Your task to perform on an android device: Open CNN.com Image 0: 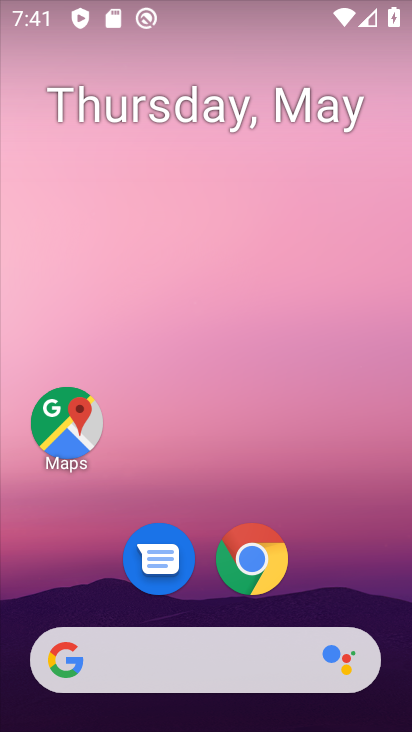
Step 0: click (253, 557)
Your task to perform on an android device: Open CNN.com Image 1: 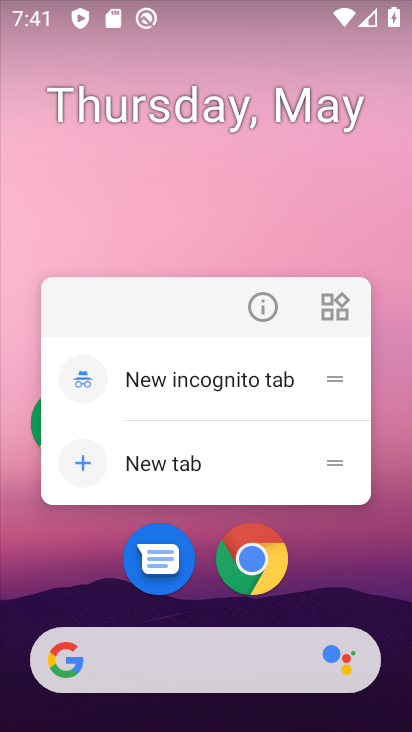
Step 1: click (253, 557)
Your task to perform on an android device: Open CNN.com Image 2: 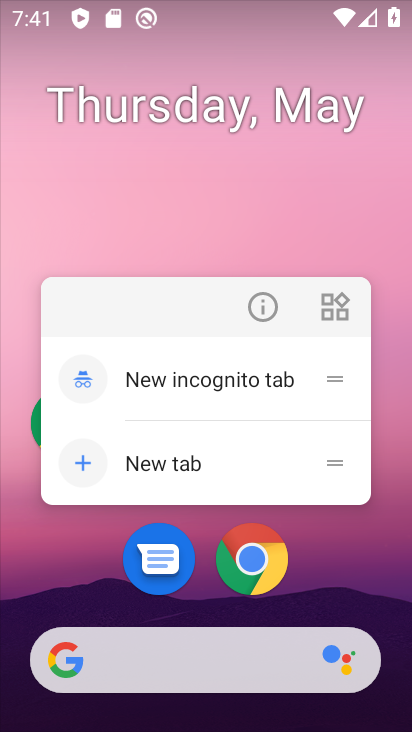
Step 2: click (251, 551)
Your task to perform on an android device: Open CNN.com Image 3: 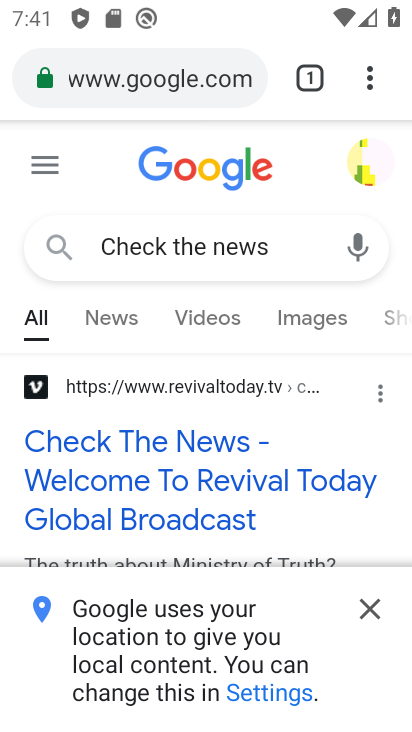
Step 3: click (359, 80)
Your task to perform on an android device: Open CNN.com Image 4: 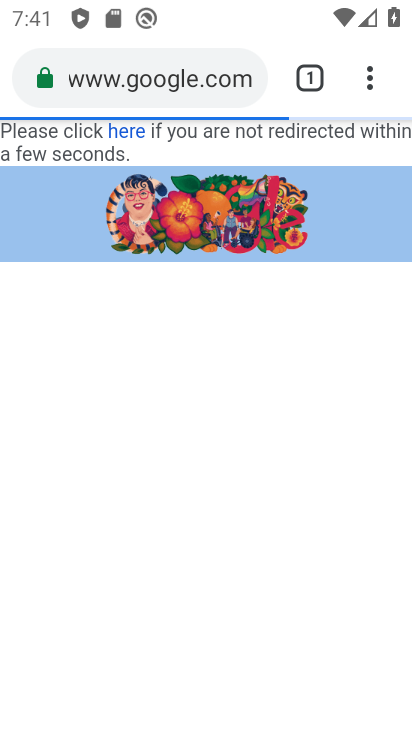
Step 4: click (379, 78)
Your task to perform on an android device: Open CNN.com Image 5: 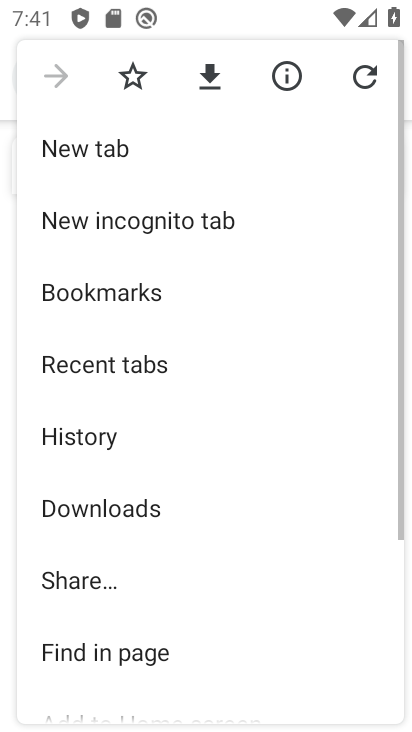
Step 5: click (120, 122)
Your task to perform on an android device: Open CNN.com Image 6: 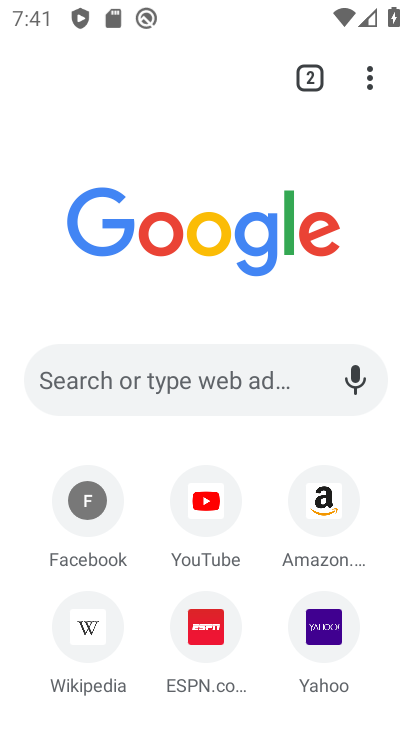
Step 6: click (155, 364)
Your task to perform on an android device: Open CNN.com Image 7: 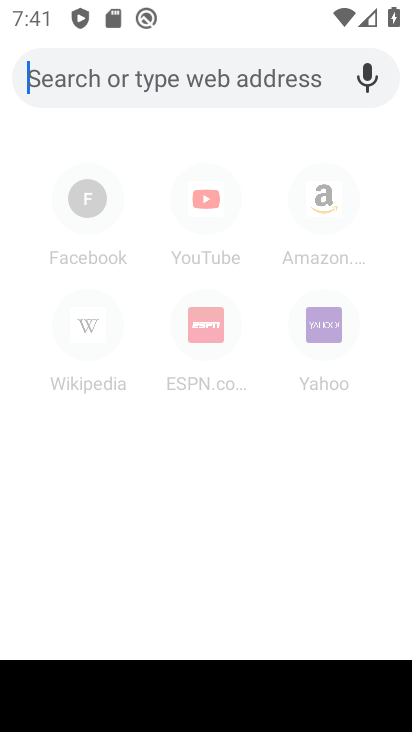
Step 7: type " CNN.com"
Your task to perform on an android device: Open CNN.com Image 8: 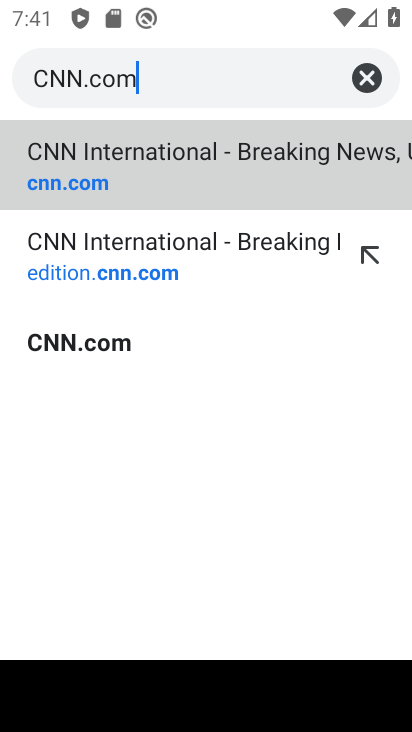
Step 8: click (93, 317)
Your task to perform on an android device: Open CNN.com Image 9: 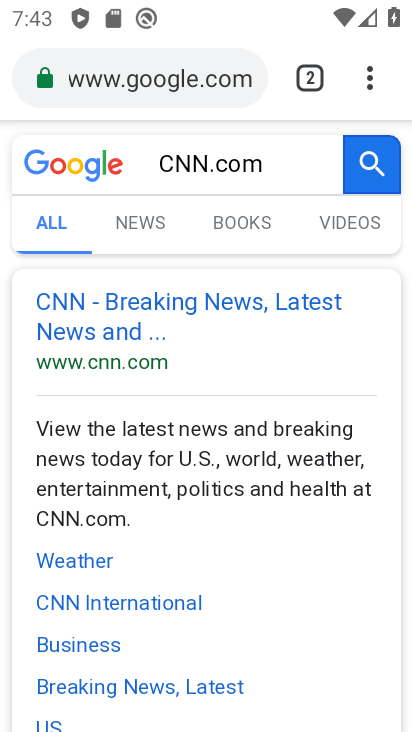
Step 9: task complete